Your task to perform on an android device: uninstall "eBay: The shopping marketplace" Image 0: 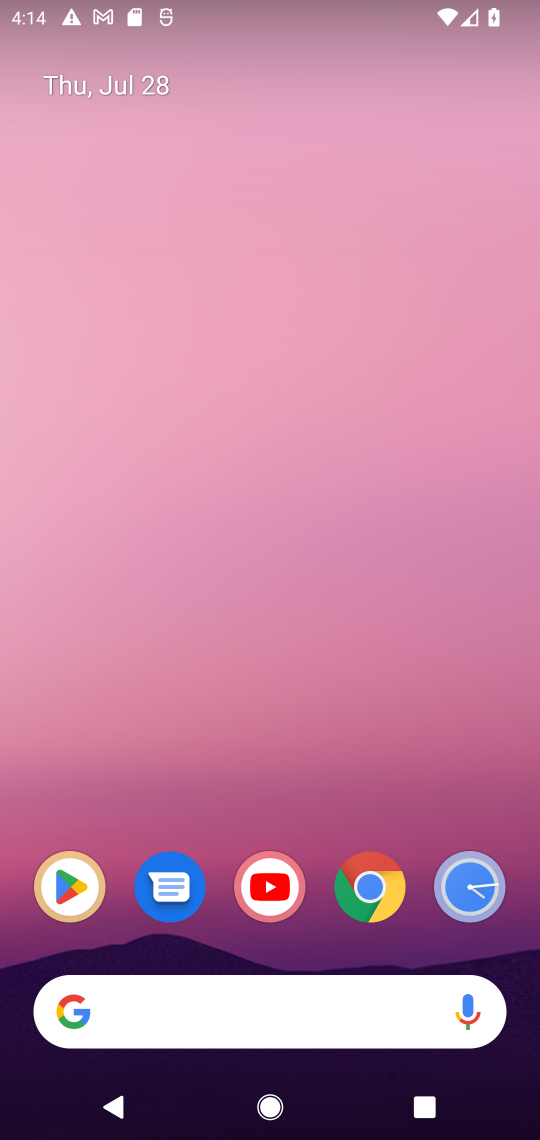
Step 0: click (83, 877)
Your task to perform on an android device: uninstall "eBay: The shopping marketplace" Image 1: 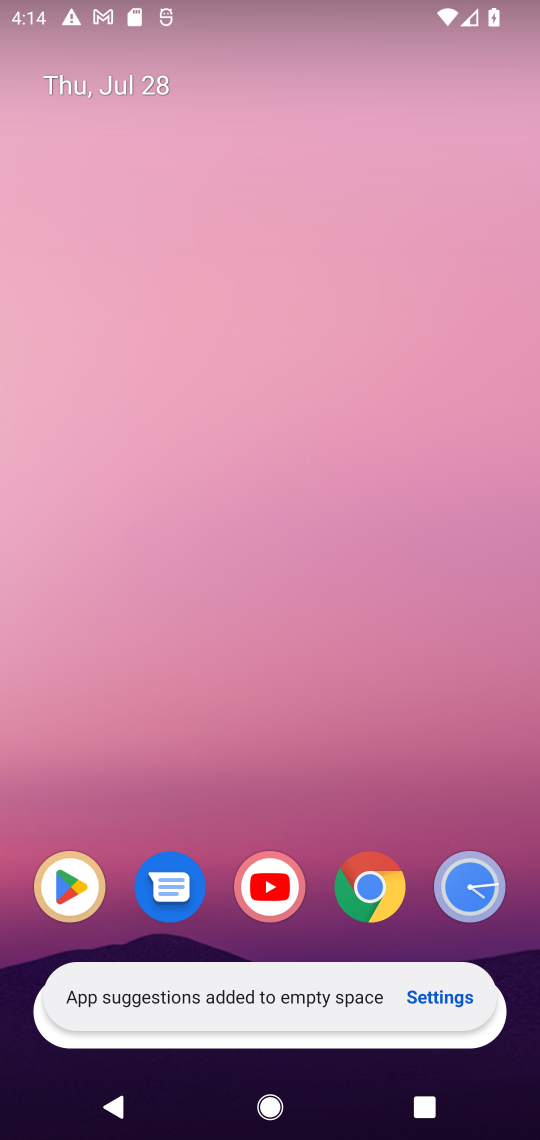
Step 1: click (63, 870)
Your task to perform on an android device: uninstall "eBay: The shopping marketplace" Image 2: 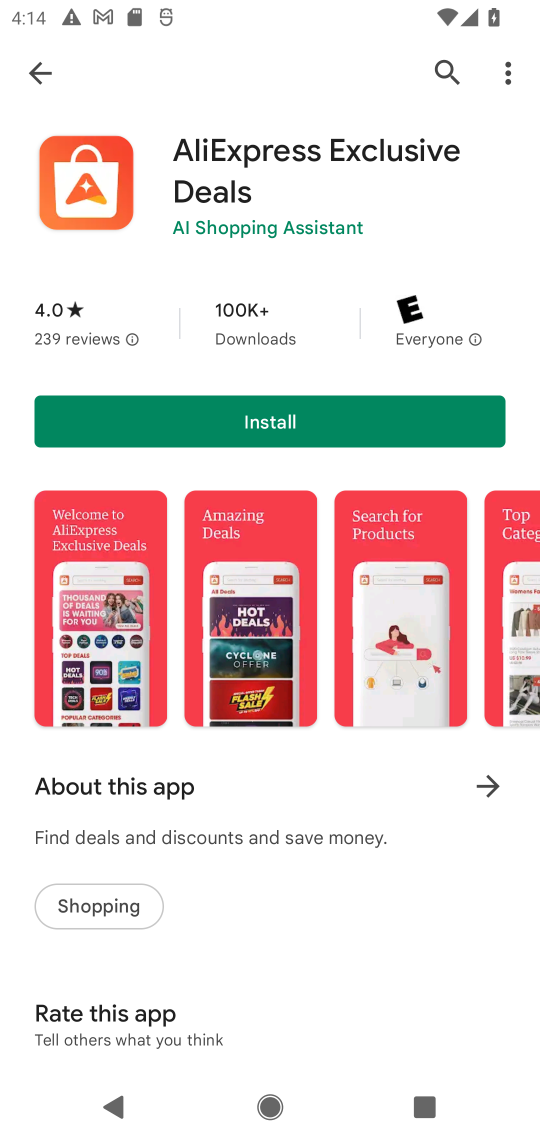
Step 2: click (36, 67)
Your task to perform on an android device: uninstall "eBay: The shopping marketplace" Image 3: 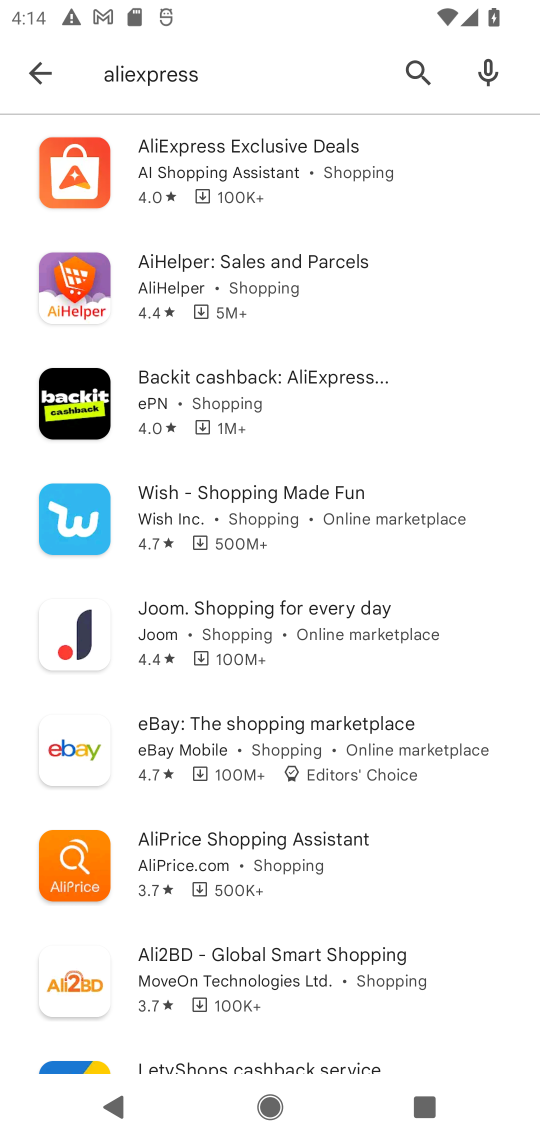
Step 3: click (203, 53)
Your task to perform on an android device: uninstall "eBay: The shopping marketplace" Image 4: 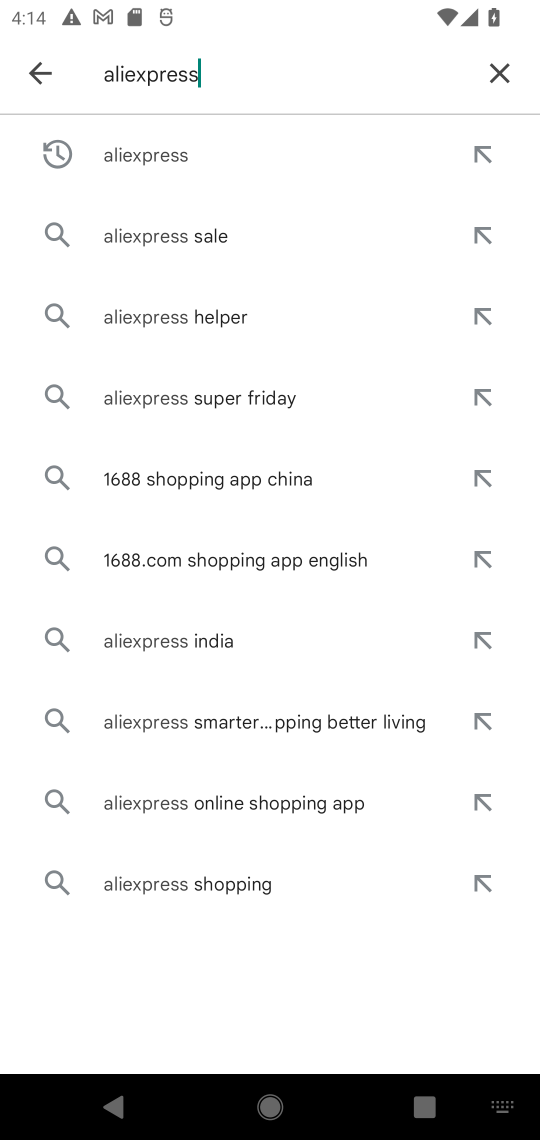
Step 4: click (498, 60)
Your task to perform on an android device: uninstall "eBay: The shopping marketplace" Image 5: 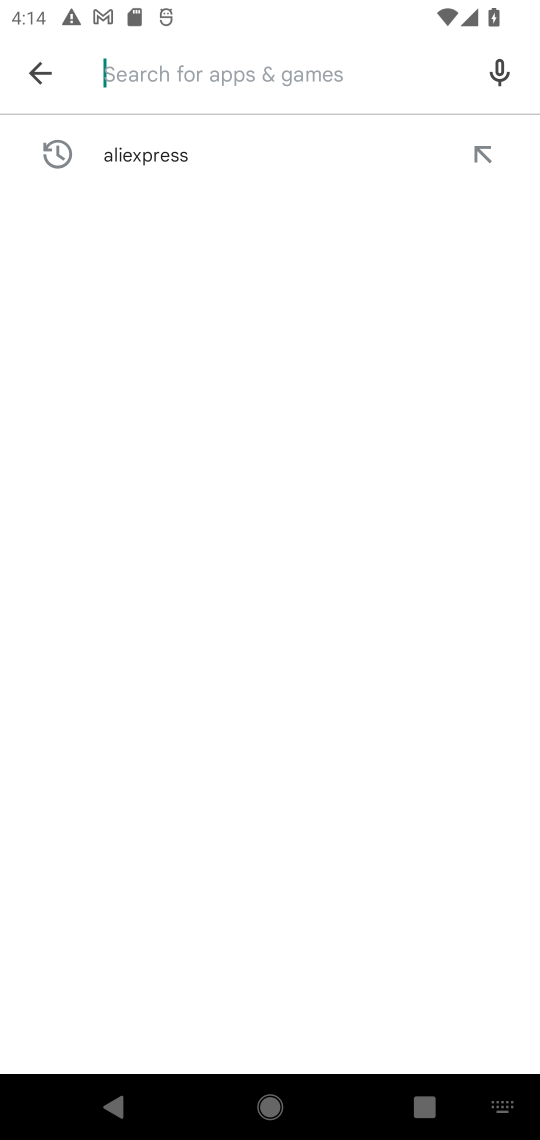
Step 5: type "eBay"
Your task to perform on an android device: uninstall "eBay: The shopping marketplace" Image 6: 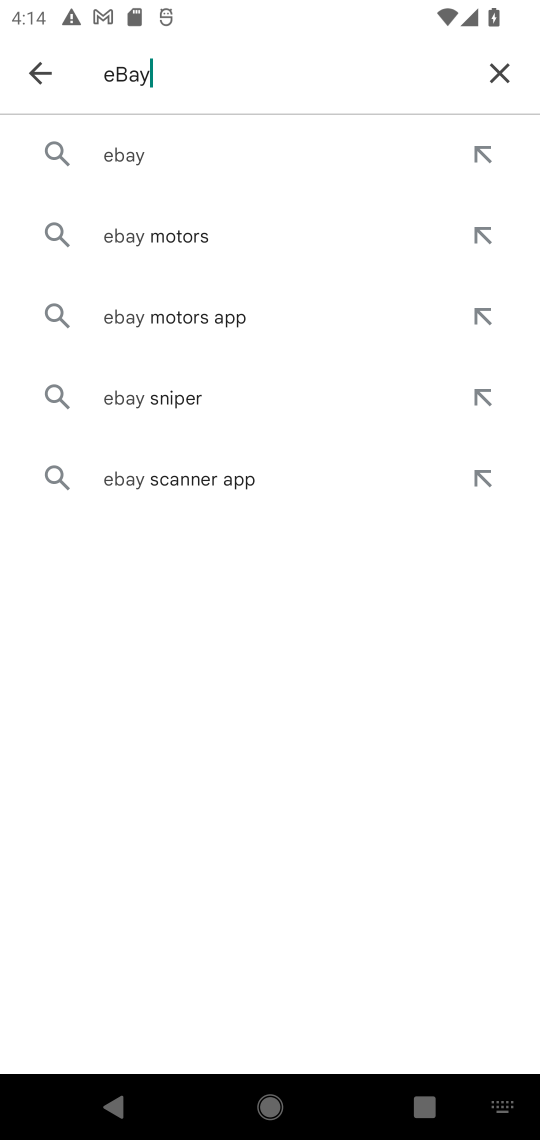
Step 6: click (206, 138)
Your task to perform on an android device: uninstall "eBay: The shopping marketplace" Image 7: 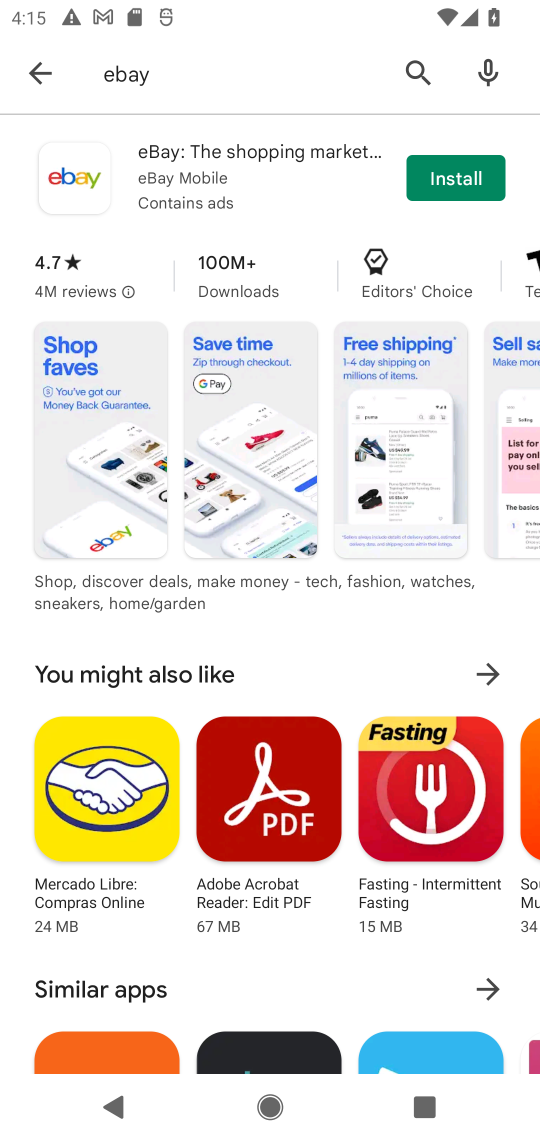
Step 7: task complete